Your task to perform on an android device: change keyboard looks Image 0: 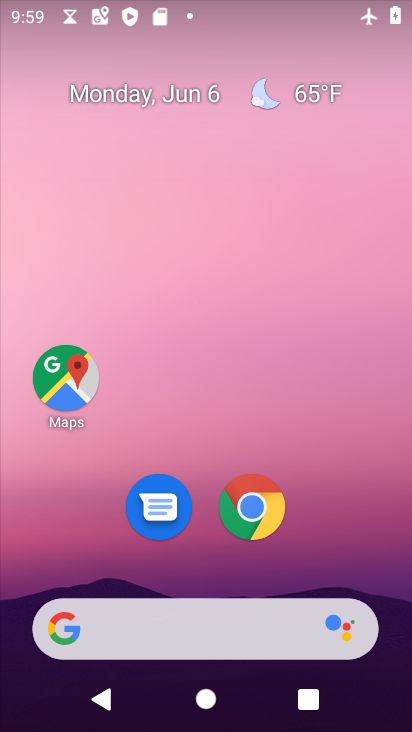
Step 0: drag from (320, 575) to (346, 217)
Your task to perform on an android device: change keyboard looks Image 1: 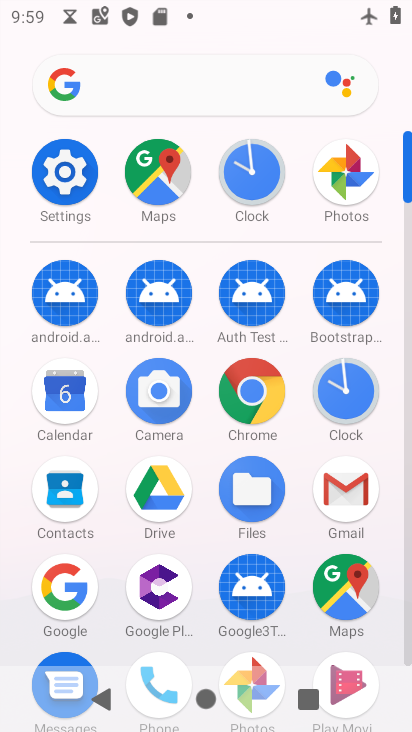
Step 1: click (68, 155)
Your task to perform on an android device: change keyboard looks Image 2: 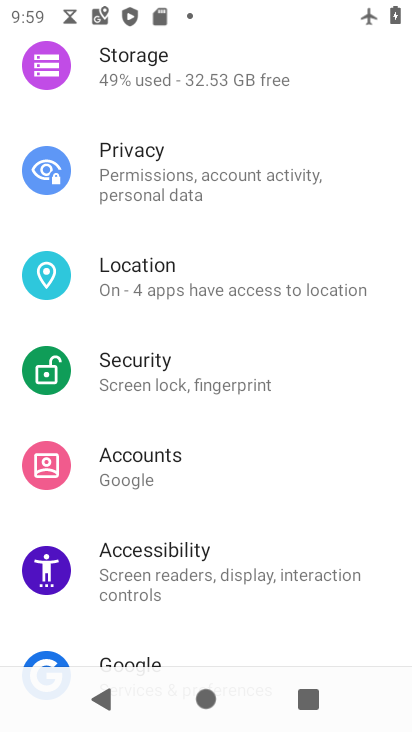
Step 2: drag from (241, 543) to (218, 235)
Your task to perform on an android device: change keyboard looks Image 3: 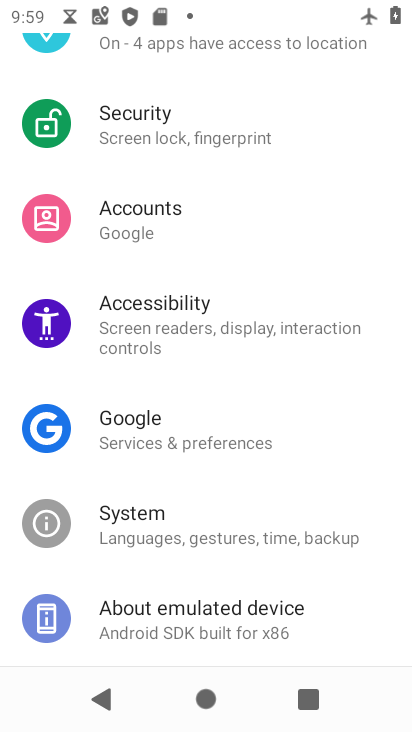
Step 3: click (184, 523)
Your task to perform on an android device: change keyboard looks Image 4: 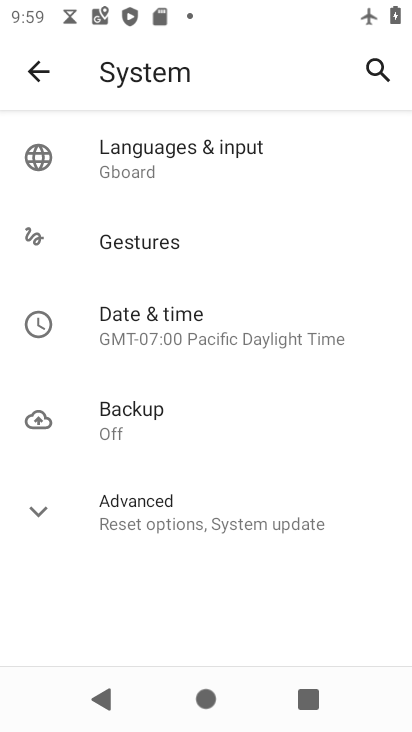
Step 4: click (143, 157)
Your task to perform on an android device: change keyboard looks Image 5: 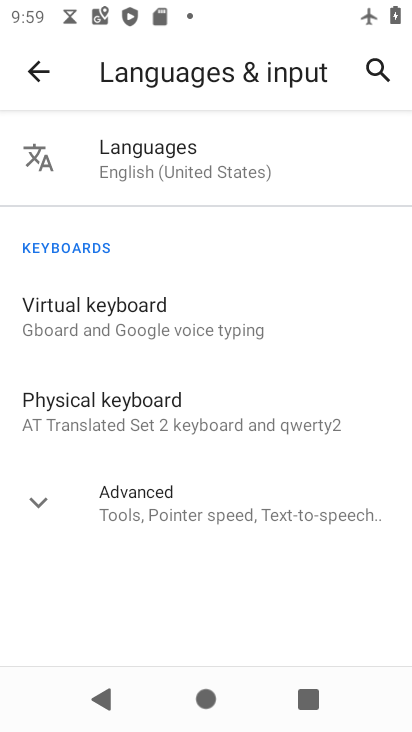
Step 5: click (102, 314)
Your task to perform on an android device: change keyboard looks Image 6: 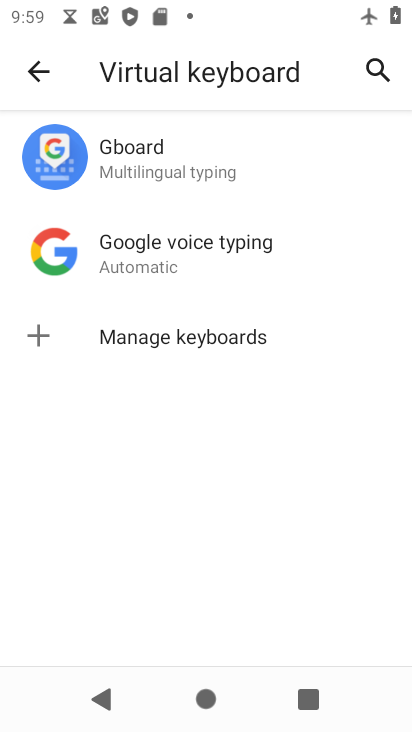
Step 6: click (117, 143)
Your task to perform on an android device: change keyboard looks Image 7: 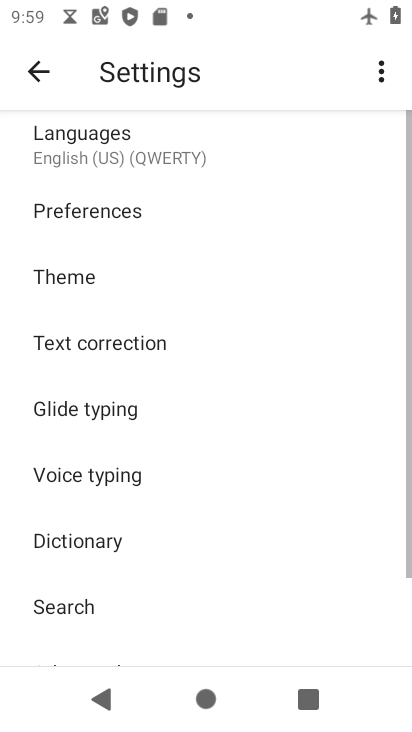
Step 7: click (94, 249)
Your task to perform on an android device: change keyboard looks Image 8: 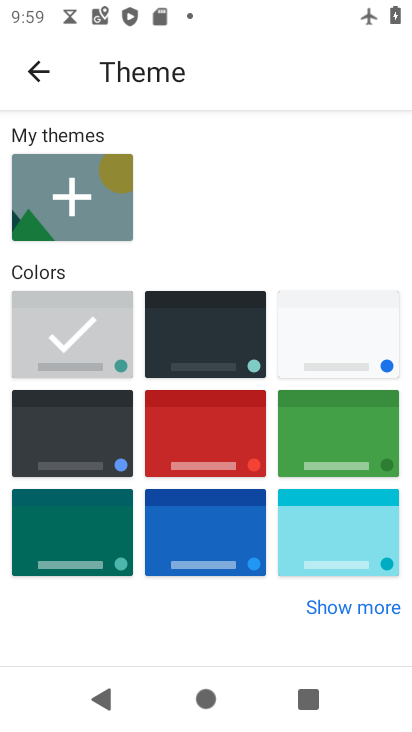
Step 8: click (204, 552)
Your task to perform on an android device: change keyboard looks Image 9: 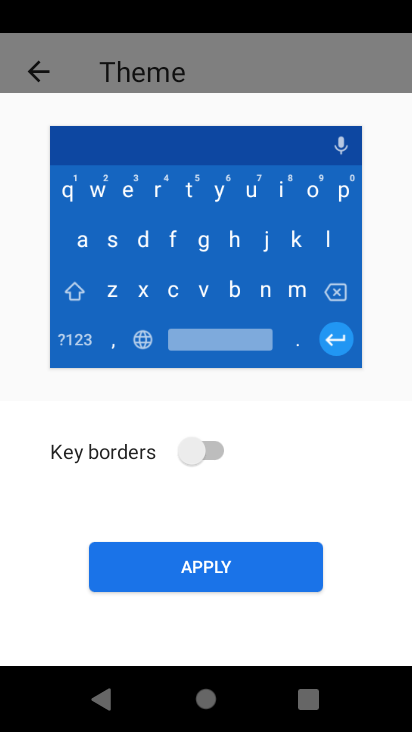
Step 9: click (189, 453)
Your task to perform on an android device: change keyboard looks Image 10: 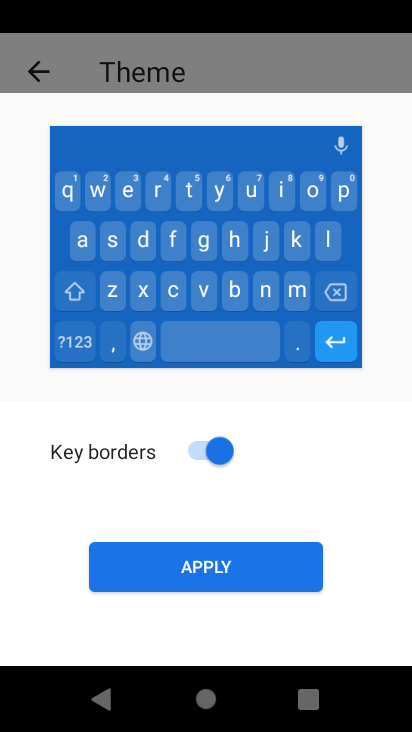
Step 10: click (212, 552)
Your task to perform on an android device: change keyboard looks Image 11: 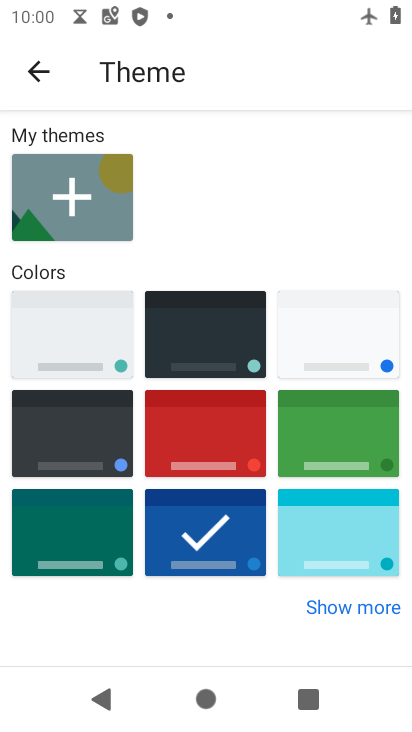
Step 11: task complete